Your task to perform on an android device: Search for Mexican restaurants on Maps Image 0: 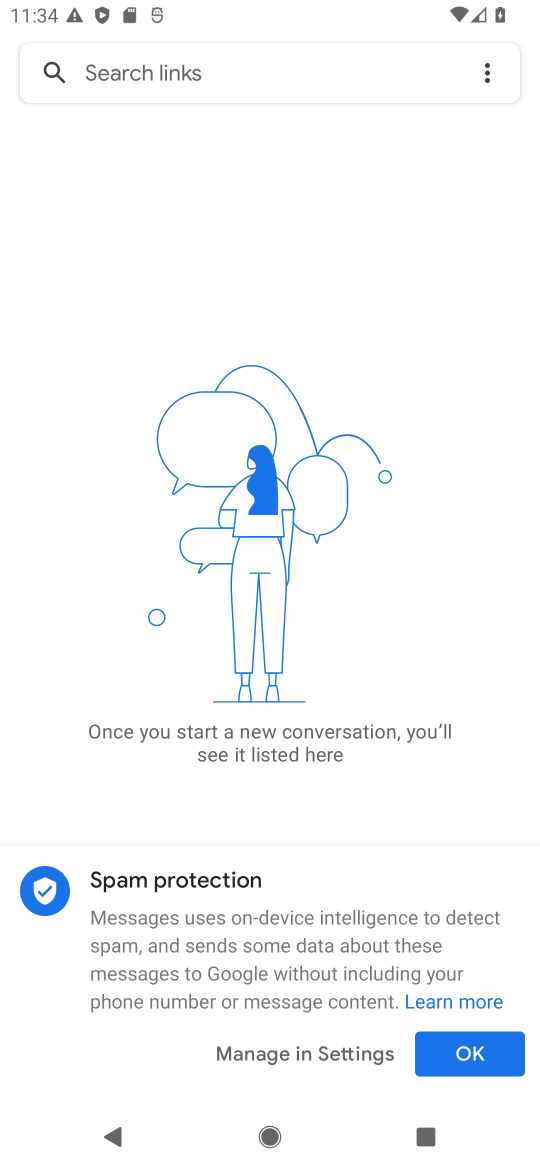
Step 0: press home button
Your task to perform on an android device: Search for Mexican restaurants on Maps Image 1: 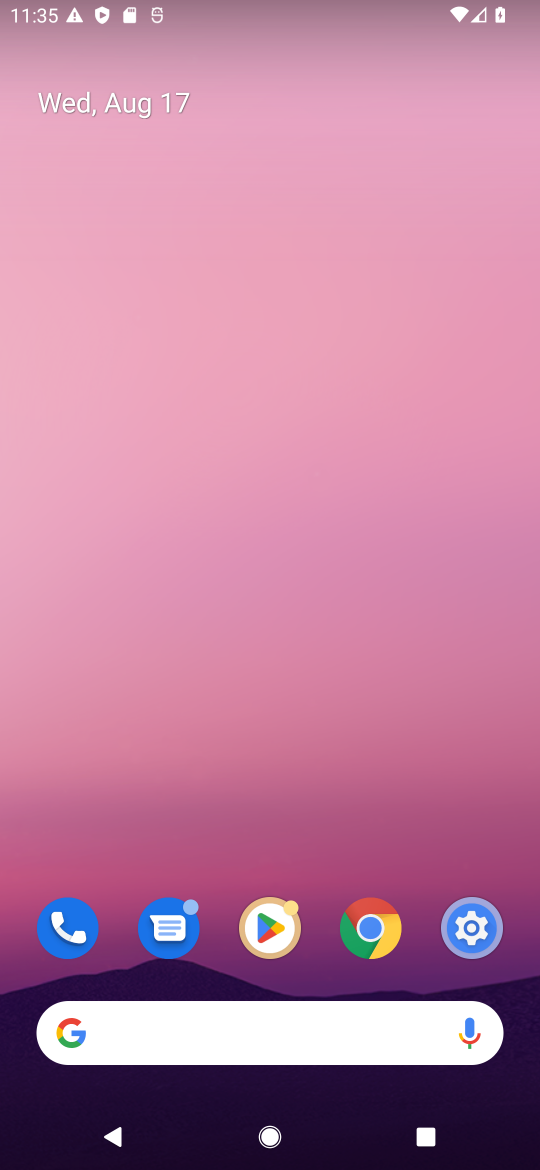
Step 1: drag from (327, 526) to (336, 382)
Your task to perform on an android device: Search for Mexican restaurants on Maps Image 2: 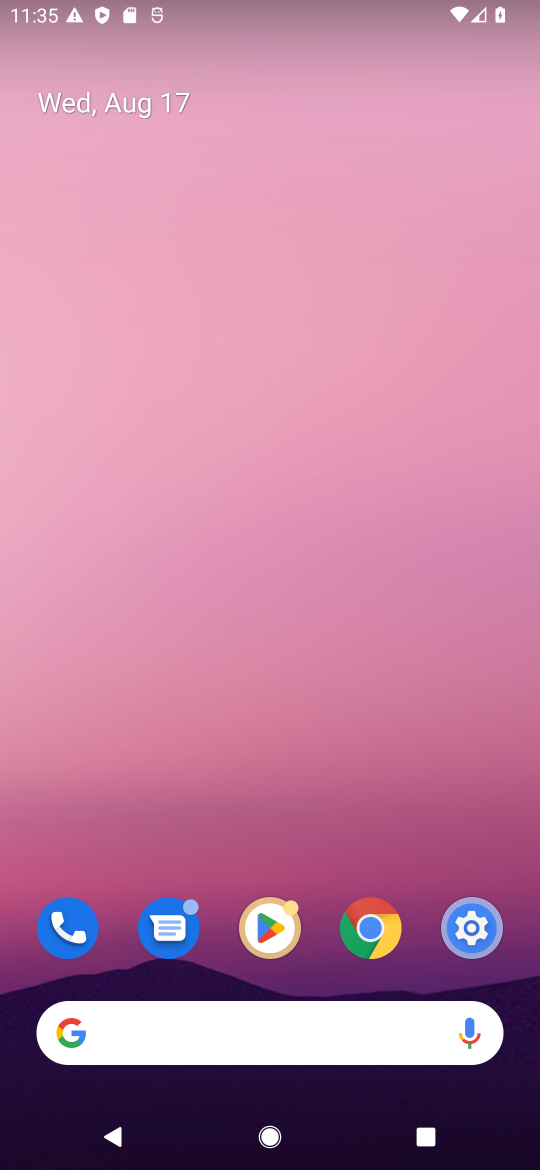
Step 2: drag from (269, 821) to (313, 291)
Your task to perform on an android device: Search for Mexican restaurants on Maps Image 3: 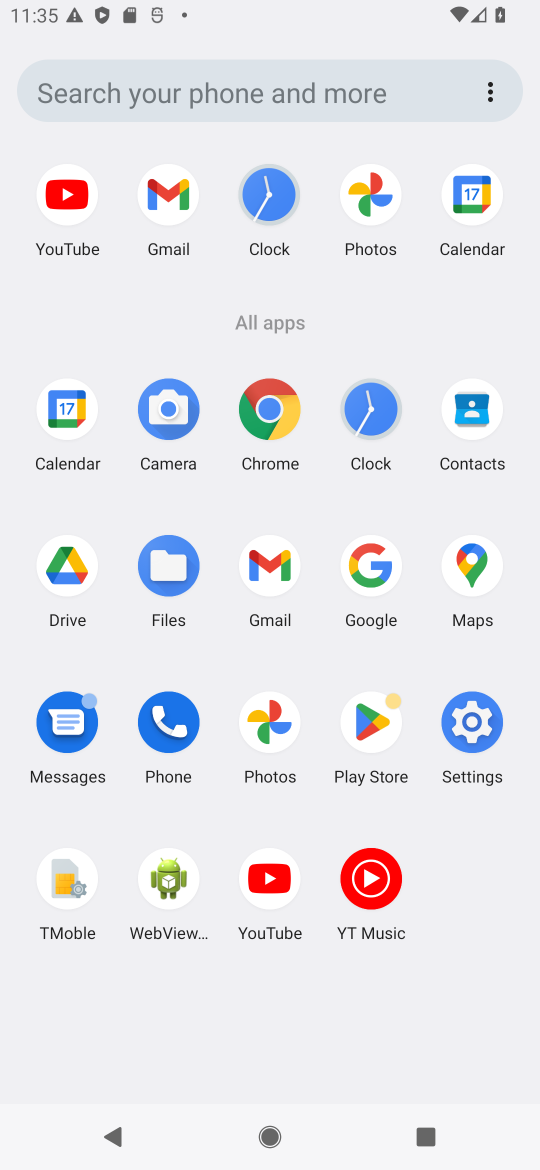
Step 3: click (453, 584)
Your task to perform on an android device: Search for Mexican restaurants on Maps Image 4: 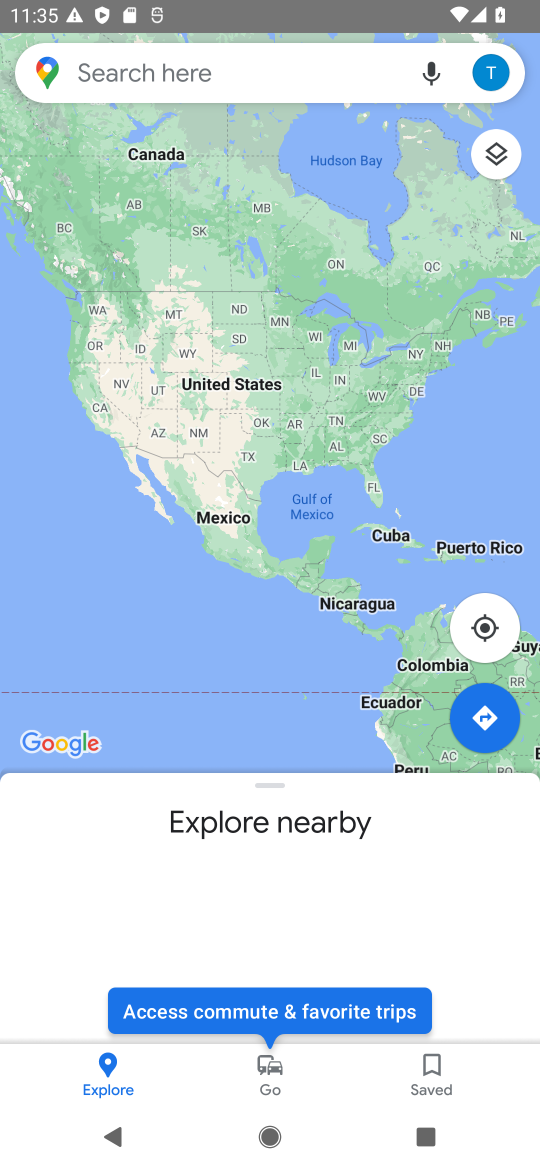
Step 4: click (264, 63)
Your task to perform on an android device: Search for Mexican restaurants on Maps Image 5: 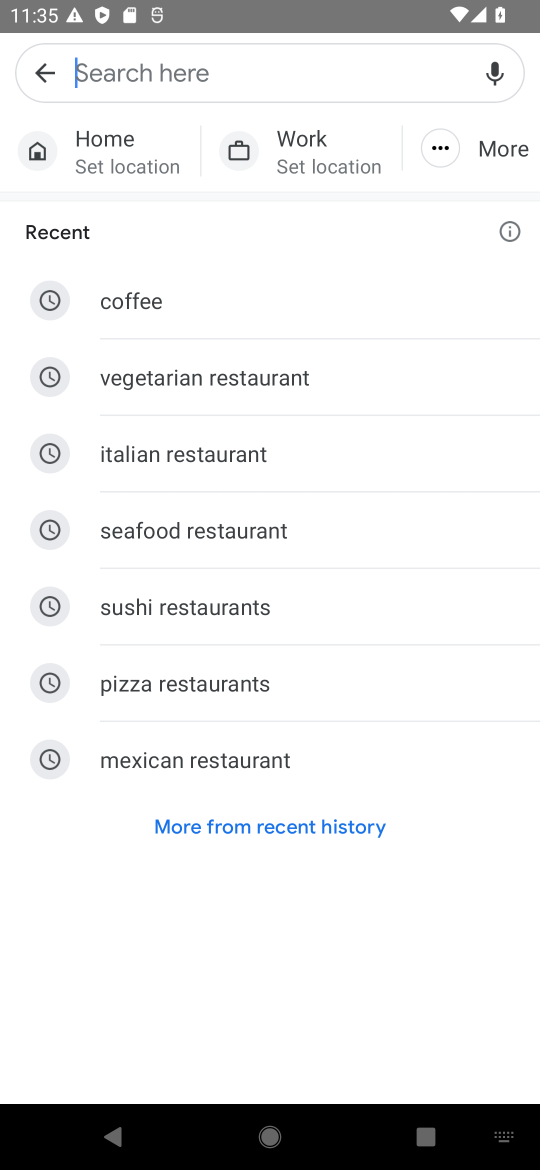
Step 5: type "Mexican restaurants"
Your task to perform on an android device: Search for Mexican restaurants on Maps Image 6: 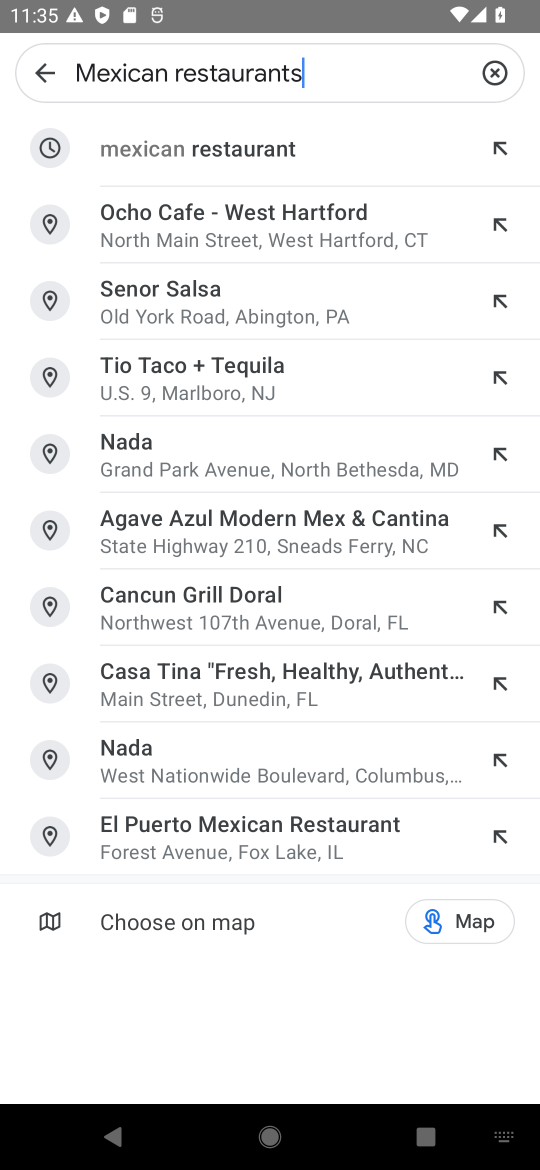
Step 6: click (239, 154)
Your task to perform on an android device: Search for Mexican restaurants on Maps Image 7: 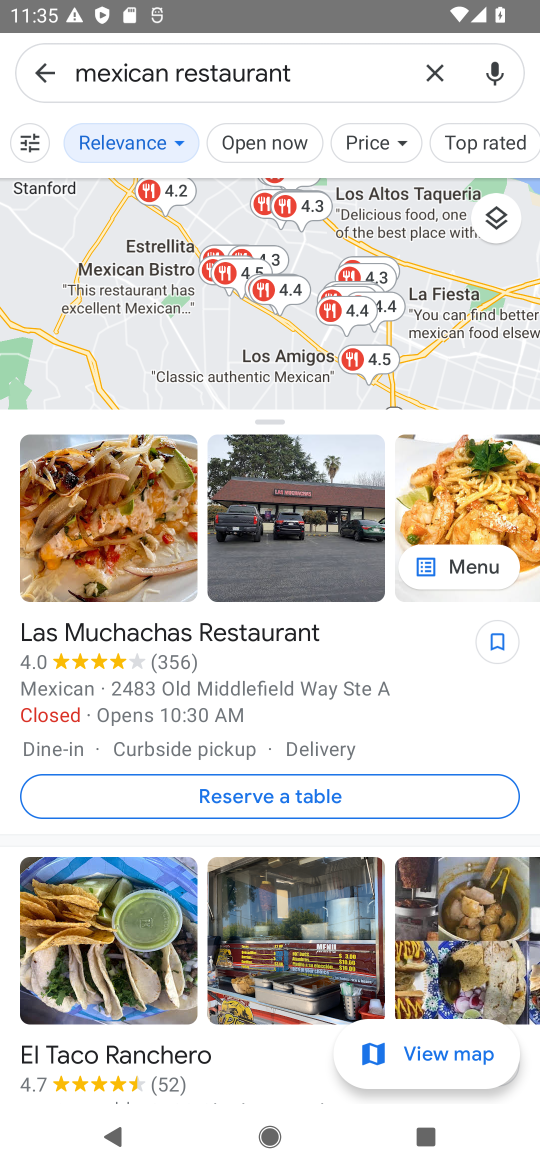
Step 7: task complete